Your task to perform on an android device: open wifi settings Image 0: 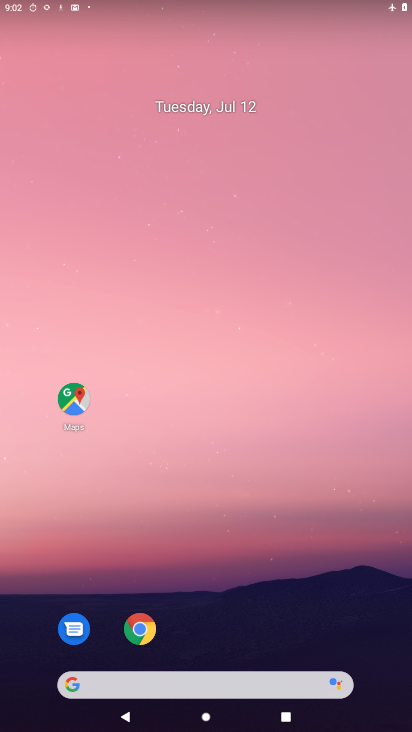
Step 0: drag from (231, 705) to (157, 162)
Your task to perform on an android device: open wifi settings Image 1: 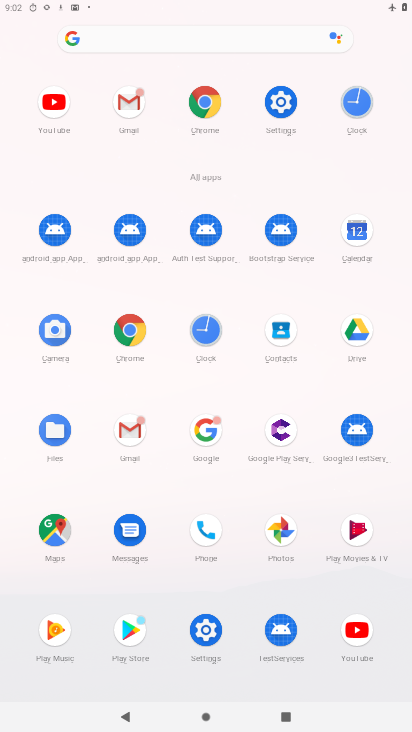
Step 1: click (278, 96)
Your task to perform on an android device: open wifi settings Image 2: 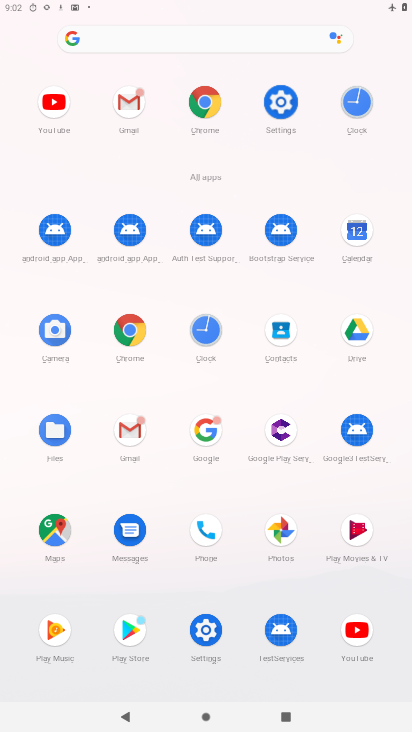
Step 2: click (279, 93)
Your task to perform on an android device: open wifi settings Image 3: 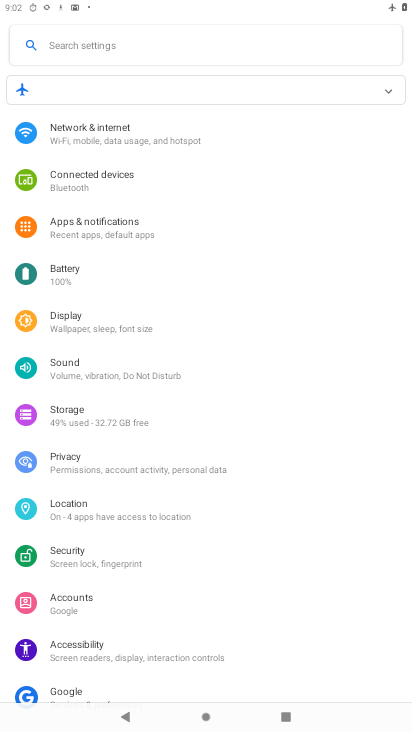
Step 3: click (105, 140)
Your task to perform on an android device: open wifi settings Image 4: 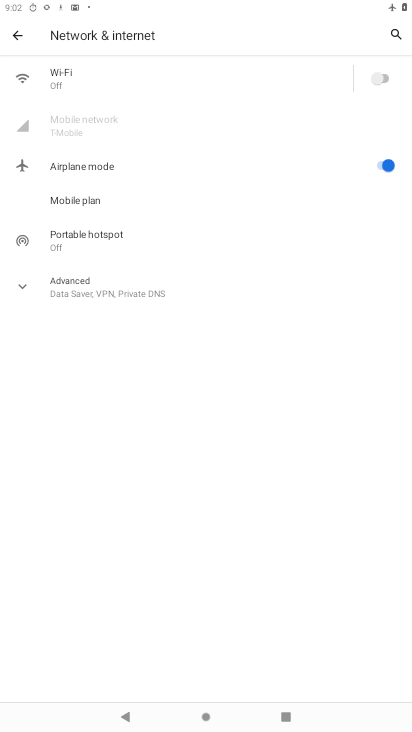
Step 4: click (391, 166)
Your task to perform on an android device: open wifi settings Image 5: 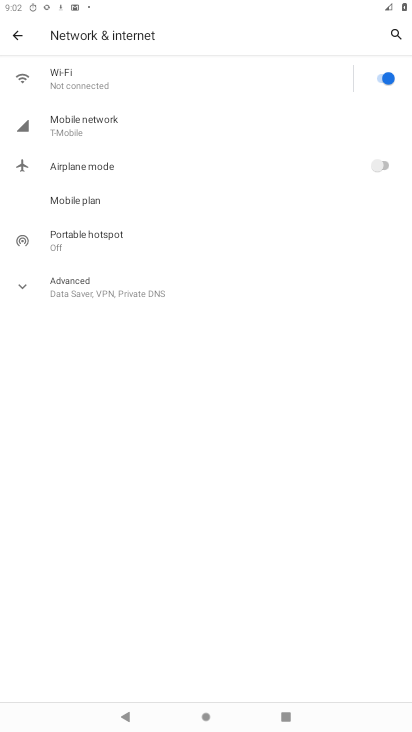
Step 5: click (382, 76)
Your task to perform on an android device: open wifi settings Image 6: 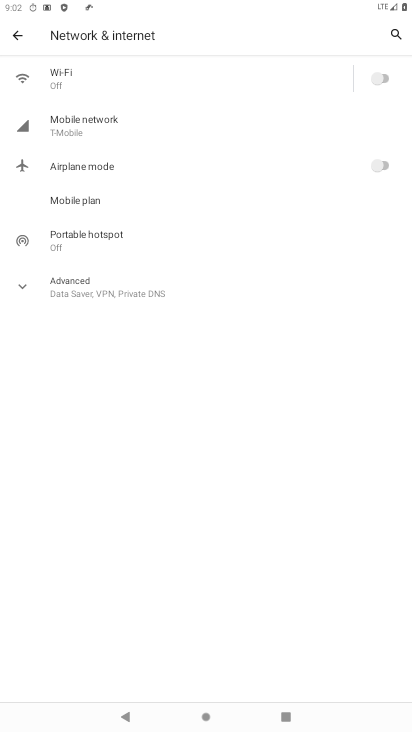
Step 6: click (384, 78)
Your task to perform on an android device: open wifi settings Image 7: 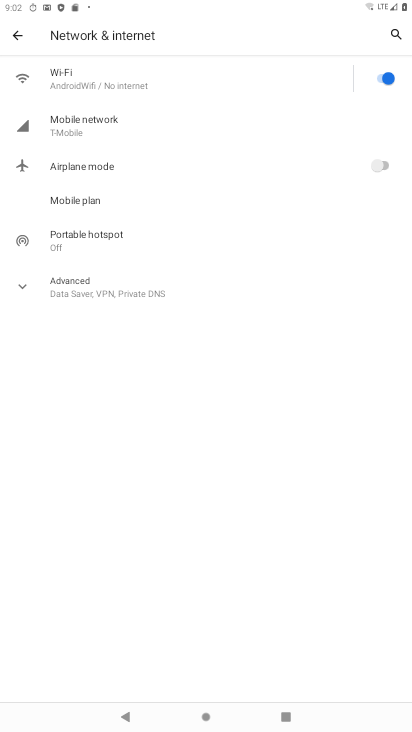
Step 7: task complete